Your task to perform on an android device: See recent photos Image 0: 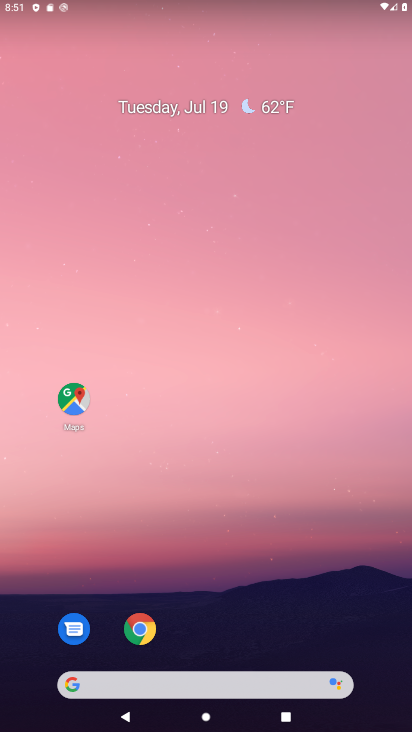
Step 0: press home button
Your task to perform on an android device: See recent photos Image 1: 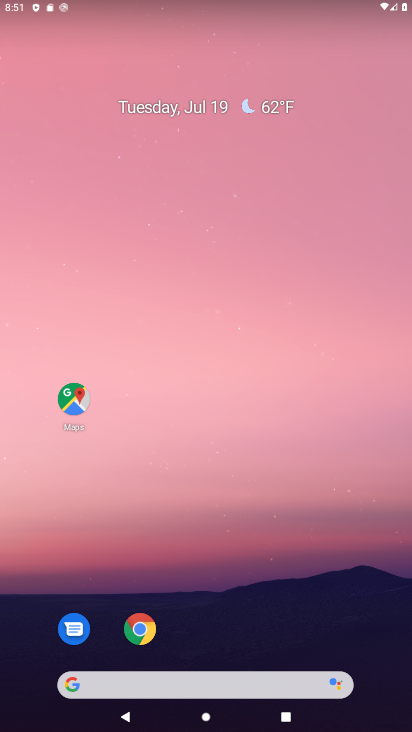
Step 1: drag from (216, 656) to (221, 154)
Your task to perform on an android device: See recent photos Image 2: 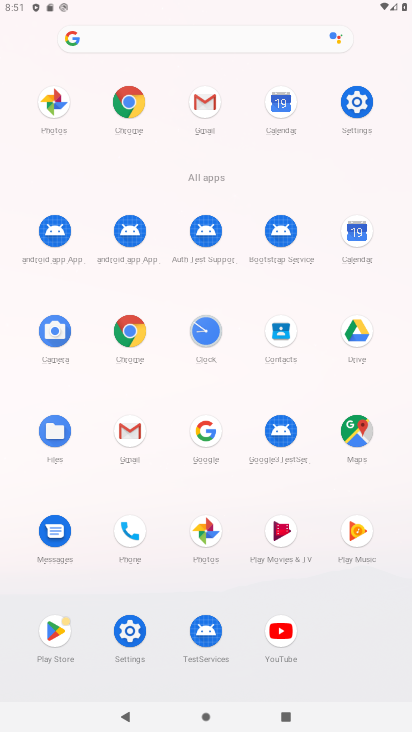
Step 2: click (207, 524)
Your task to perform on an android device: See recent photos Image 3: 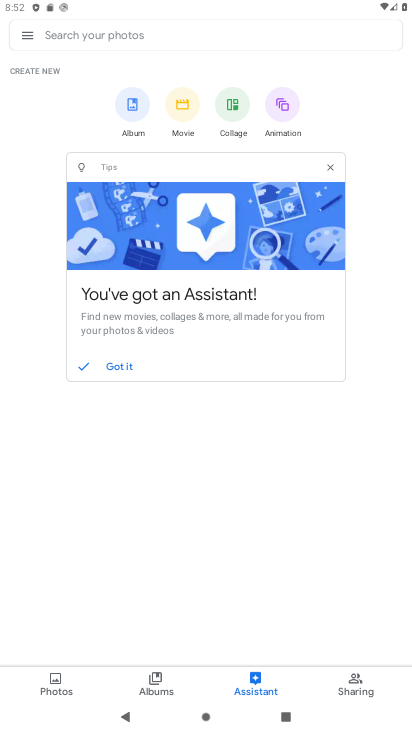
Step 3: click (54, 680)
Your task to perform on an android device: See recent photos Image 4: 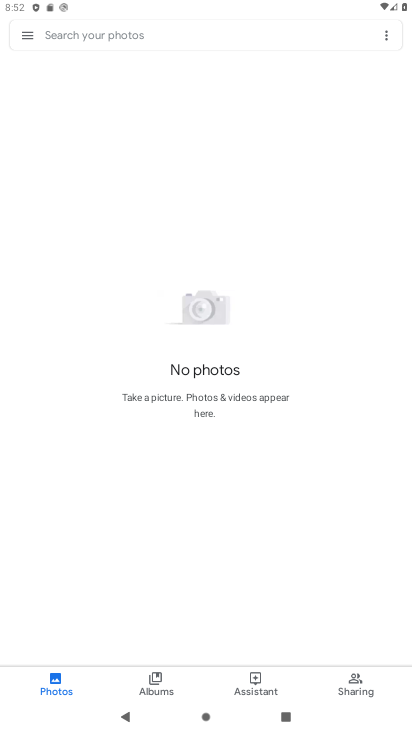
Step 4: task complete